Your task to perform on an android device: Go to CNN.com Image 0: 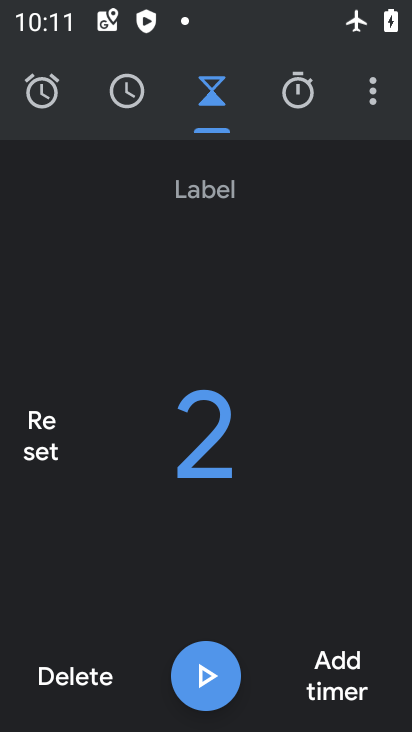
Step 0: press home button
Your task to perform on an android device: Go to CNN.com Image 1: 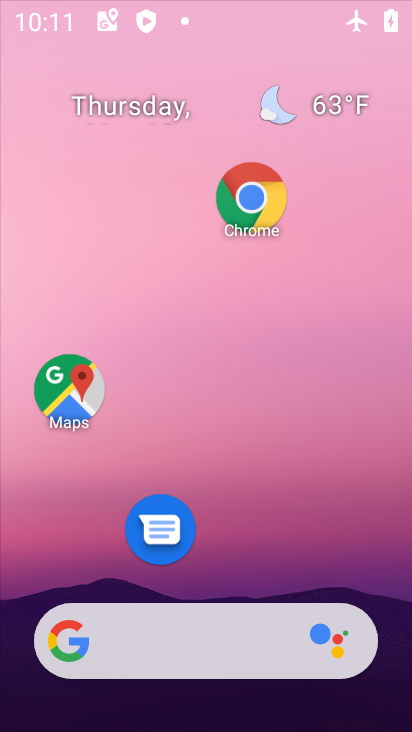
Step 1: drag from (259, 682) to (381, 204)
Your task to perform on an android device: Go to CNN.com Image 2: 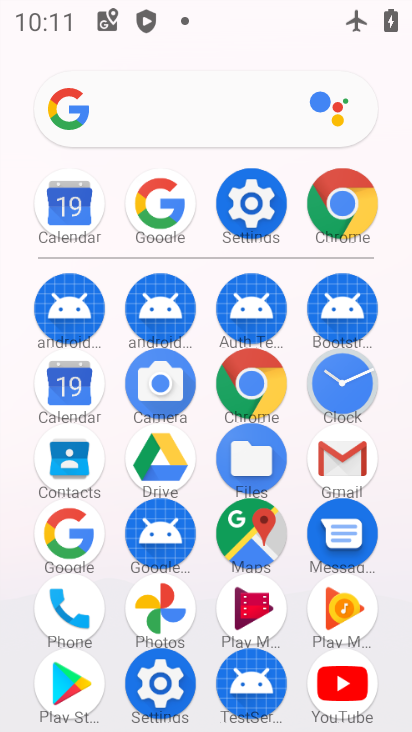
Step 2: click (358, 222)
Your task to perform on an android device: Go to CNN.com Image 3: 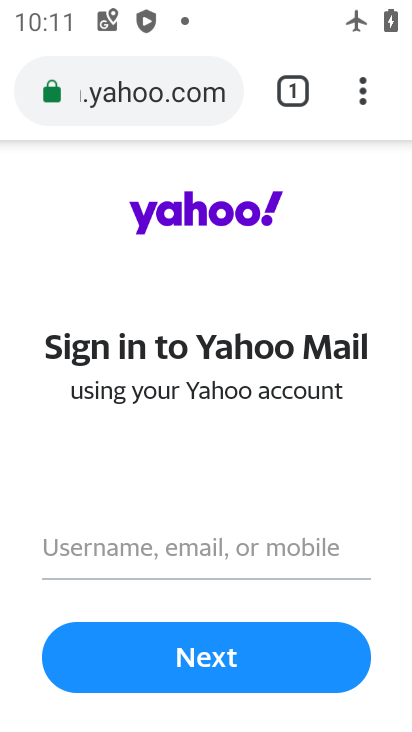
Step 3: click (171, 102)
Your task to perform on an android device: Go to CNN.com Image 4: 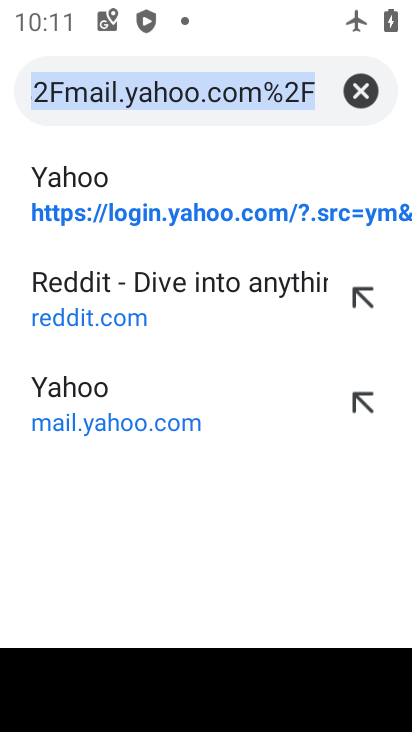
Step 4: type "cnn"
Your task to perform on an android device: Go to CNN.com Image 5: 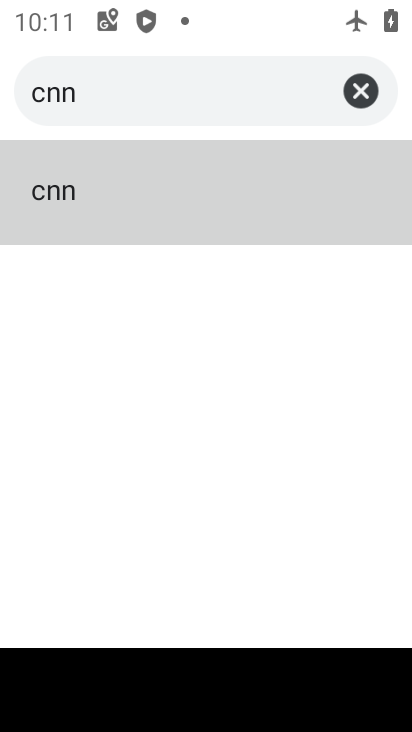
Step 5: click (238, 207)
Your task to perform on an android device: Go to CNN.com Image 6: 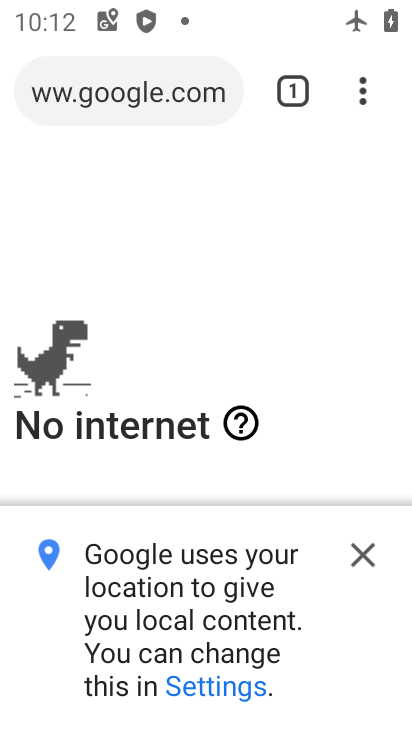
Step 6: click (367, 559)
Your task to perform on an android device: Go to CNN.com Image 7: 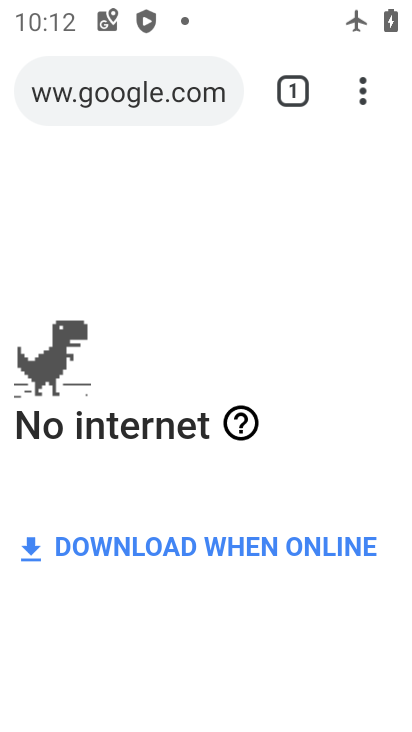
Step 7: click (215, 102)
Your task to perform on an android device: Go to CNN.com Image 8: 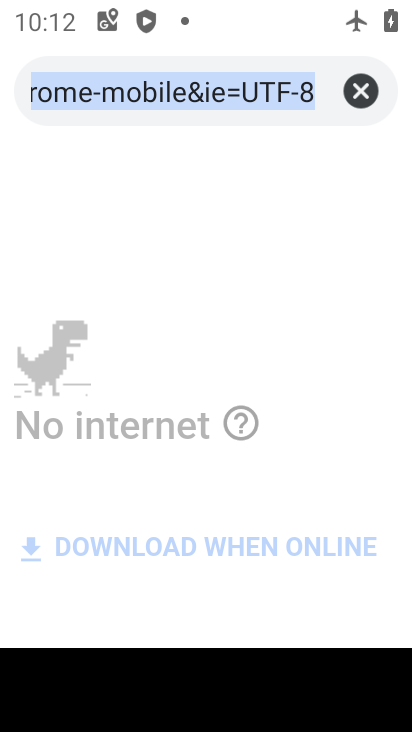
Step 8: task complete